Your task to perform on an android device: Open CNN.com Image 0: 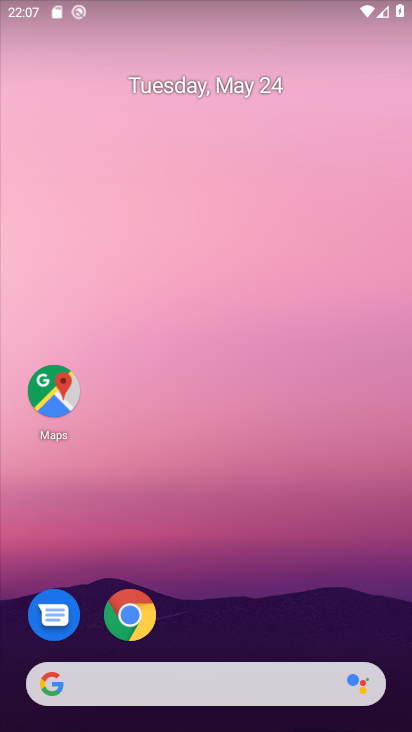
Step 0: click (131, 602)
Your task to perform on an android device: Open CNN.com Image 1: 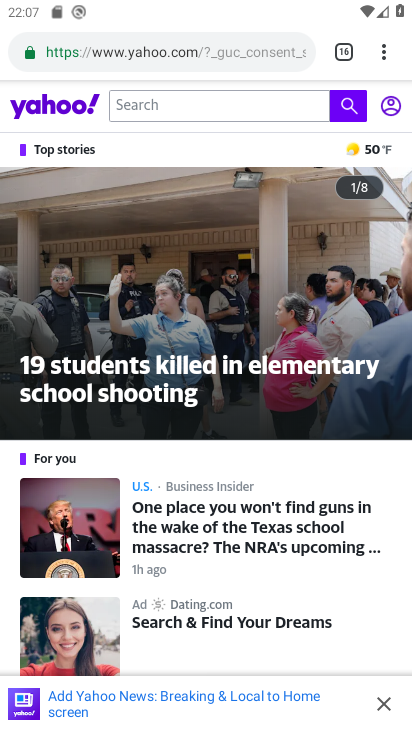
Step 1: click (374, 52)
Your task to perform on an android device: Open CNN.com Image 2: 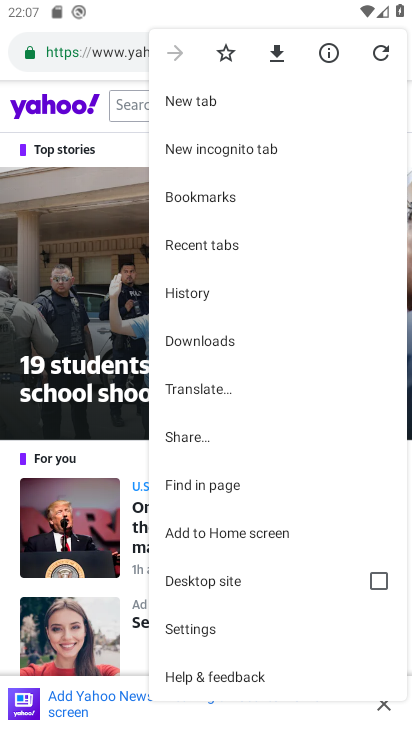
Step 2: click (217, 92)
Your task to perform on an android device: Open CNN.com Image 3: 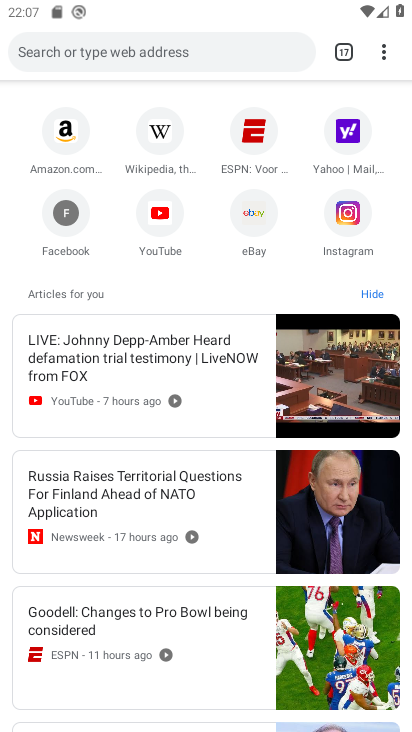
Step 3: click (173, 36)
Your task to perform on an android device: Open CNN.com Image 4: 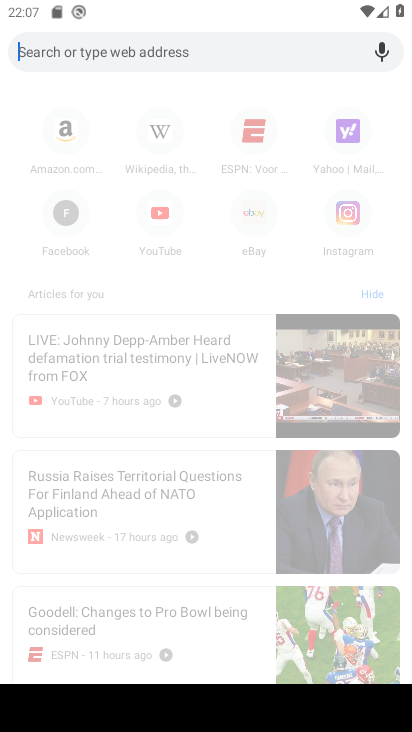
Step 4: type "CNN.com"
Your task to perform on an android device: Open CNN.com Image 5: 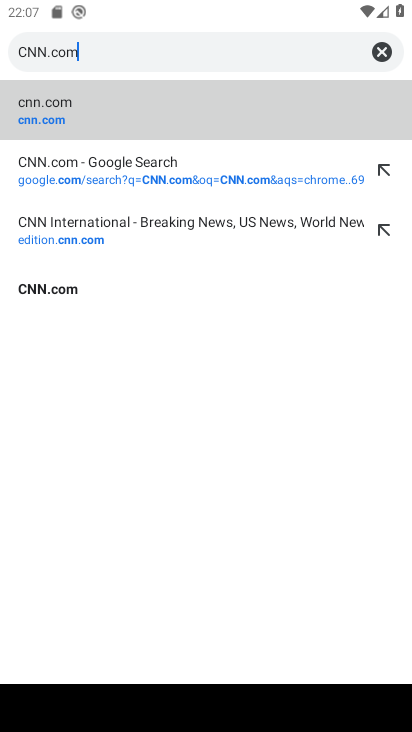
Step 5: click (84, 97)
Your task to perform on an android device: Open CNN.com Image 6: 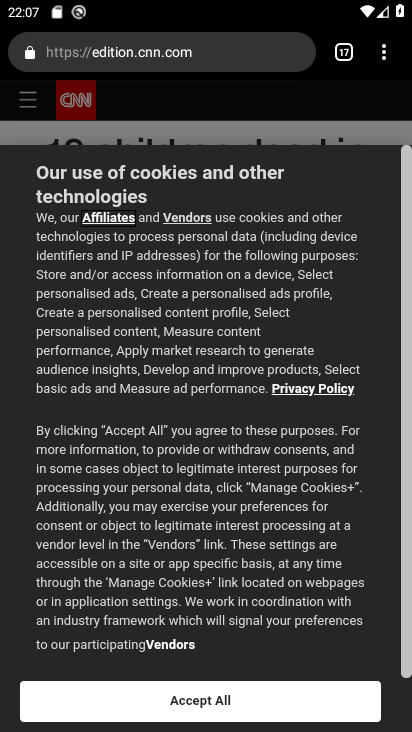
Step 6: task complete